Your task to perform on an android device: see tabs open on other devices in the chrome app Image 0: 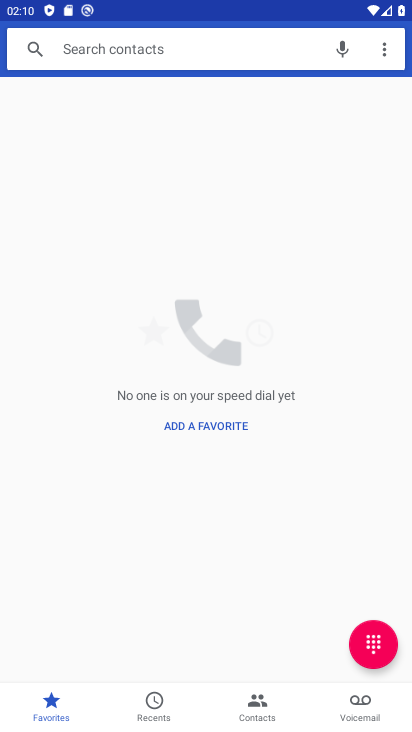
Step 0: press home button
Your task to perform on an android device: see tabs open on other devices in the chrome app Image 1: 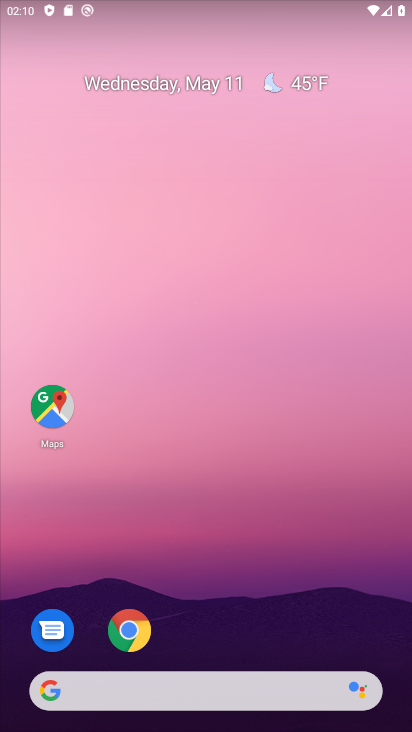
Step 1: click (132, 631)
Your task to perform on an android device: see tabs open on other devices in the chrome app Image 2: 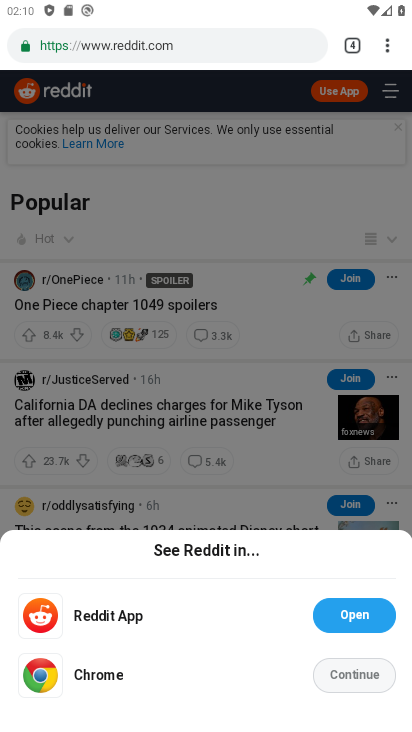
Step 2: click (389, 51)
Your task to perform on an android device: see tabs open on other devices in the chrome app Image 3: 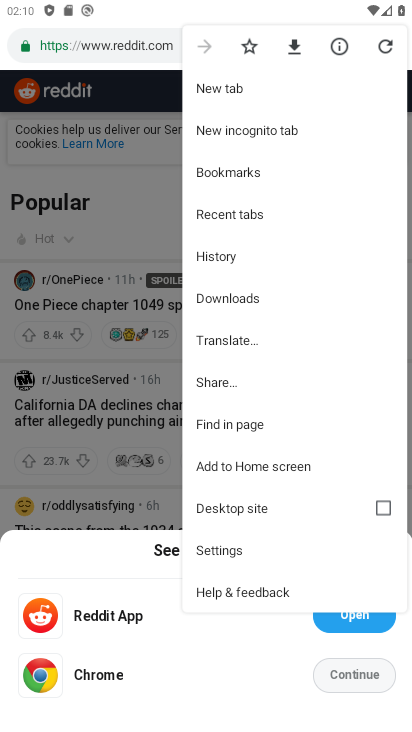
Step 3: click (235, 212)
Your task to perform on an android device: see tabs open on other devices in the chrome app Image 4: 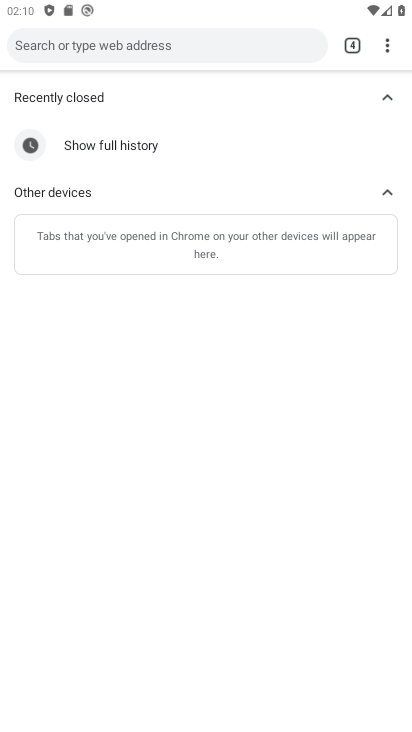
Step 4: task complete